Your task to perform on an android device: toggle improve location accuracy Image 0: 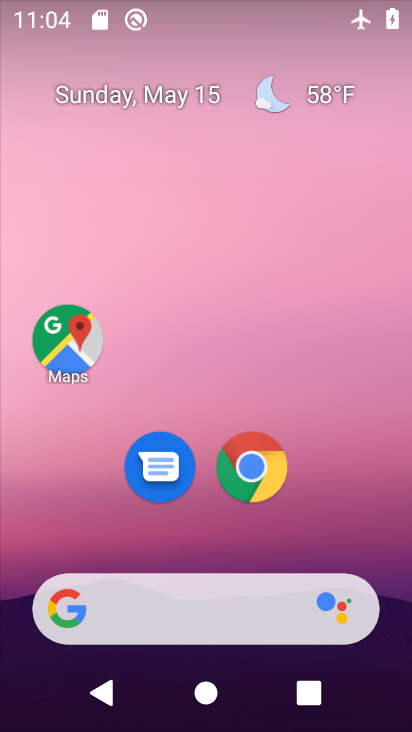
Step 0: drag from (218, 526) to (253, 172)
Your task to perform on an android device: toggle improve location accuracy Image 1: 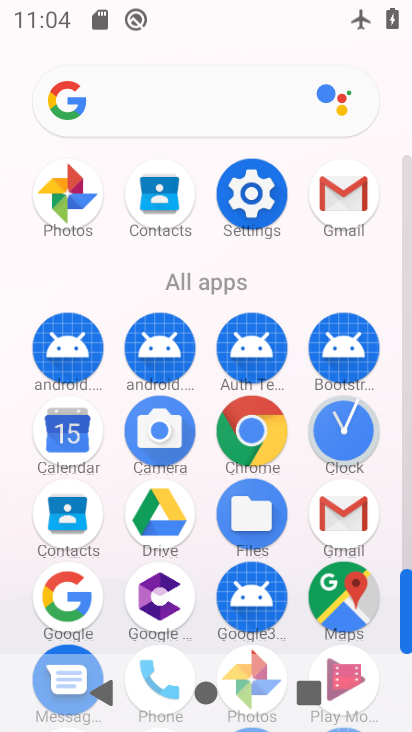
Step 1: click (257, 181)
Your task to perform on an android device: toggle improve location accuracy Image 2: 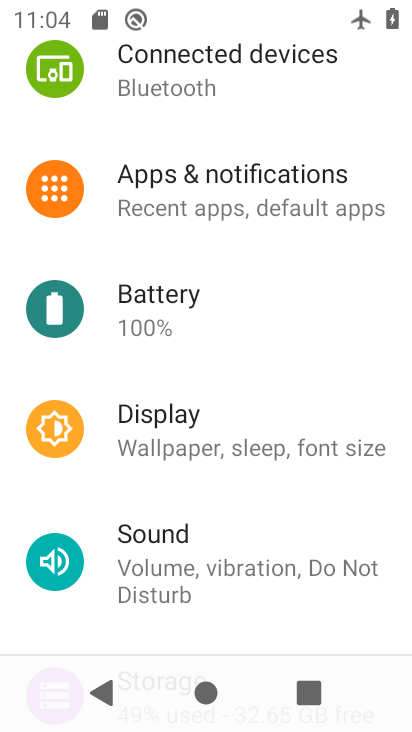
Step 2: drag from (212, 549) to (229, 199)
Your task to perform on an android device: toggle improve location accuracy Image 3: 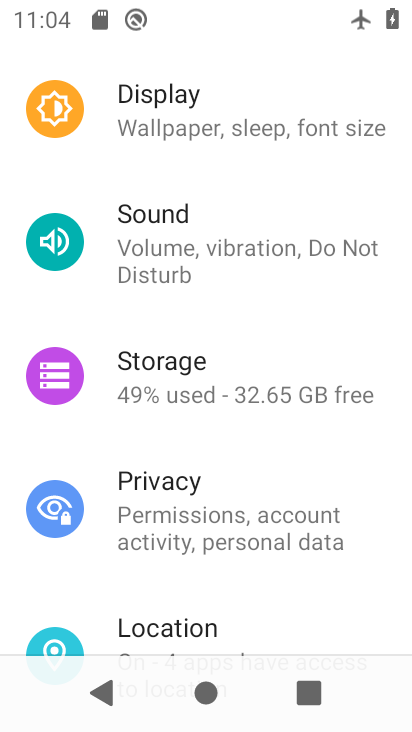
Step 3: click (236, 617)
Your task to perform on an android device: toggle improve location accuracy Image 4: 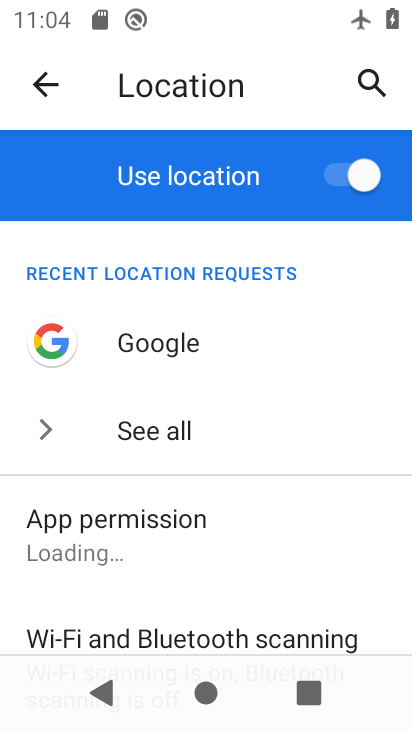
Step 4: drag from (196, 605) to (215, 132)
Your task to perform on an android device: toggle improve location accuracy Image 5: 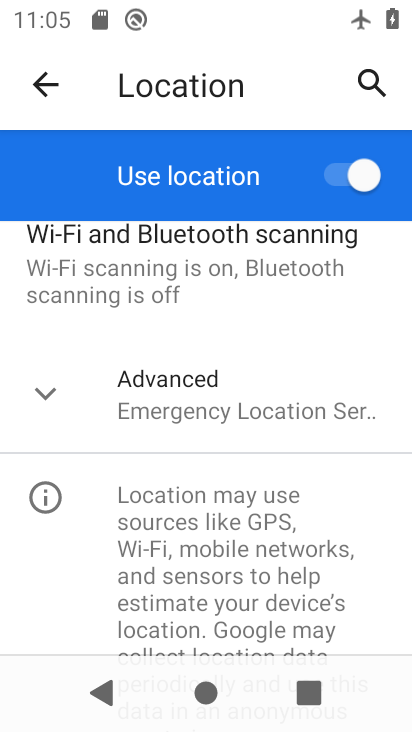
Step 5: click (52, 390)
Your task to perform on an android device: toggle improve location accuracy Image 6: 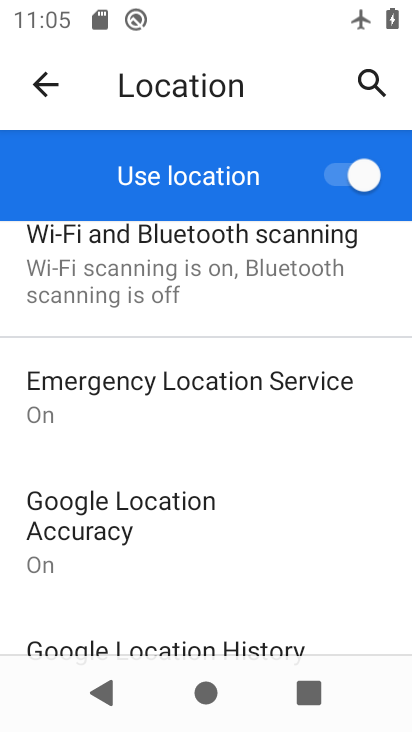
Step 6: click (138, 535)
Your task to perform on an android device: toggle improve location accuracy Image 7: 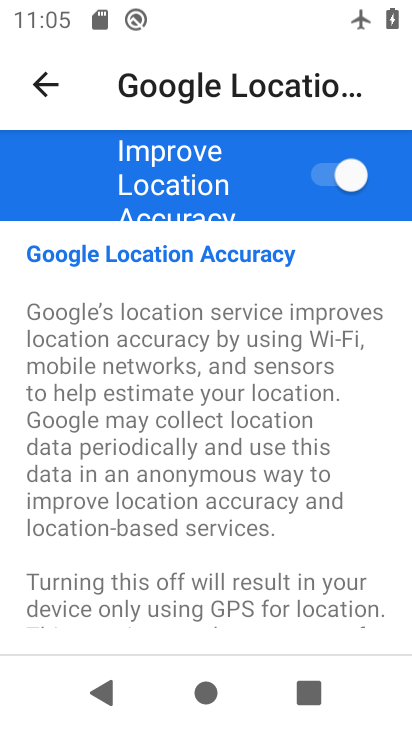
Step 7: click (326, 167)
Your task to perform on an android device: toggle improve location accuracy Image 8: 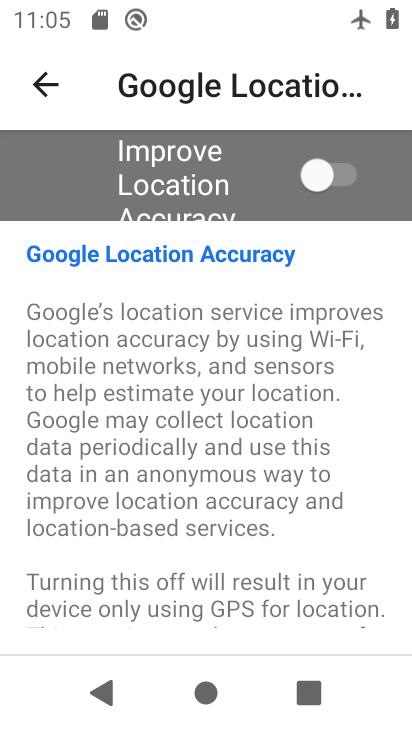
Step 8: task complete